Your task to perform on an android device: Go to wifi settings Image 0: 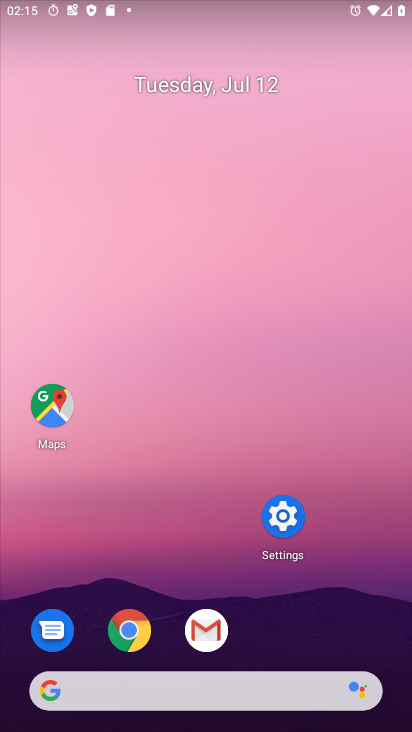
Step 0: click (276, 514)
Your task to perform on an android device: Go to wifi settings Image 1: 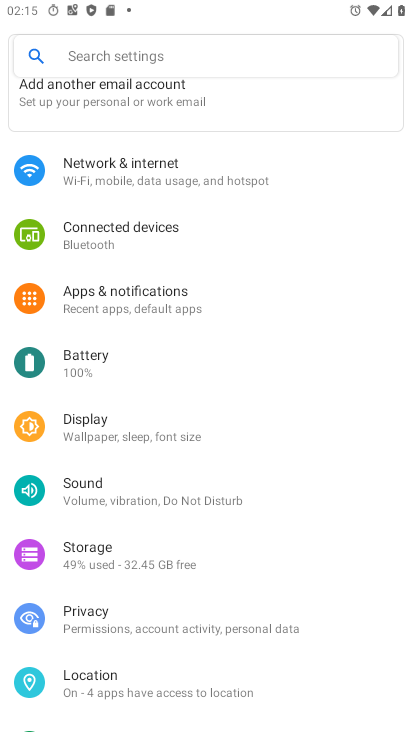
Step 1: click (127, 167)
Your task to perform on an android device: Go to wifi settings Image 2: 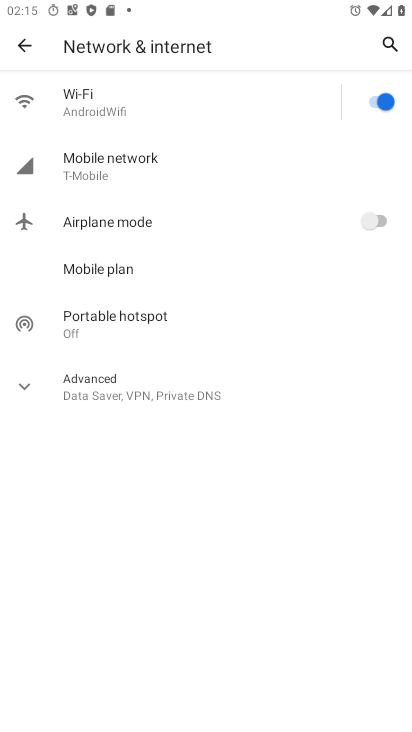
Step 2: click (105, 117)
Your task to perform on an android device: Go to wifi settings Image 3: 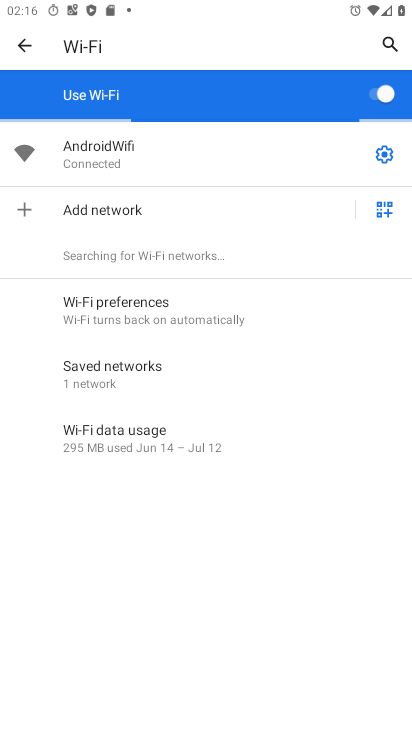
Step 3: task complete